Your task to perform on an android device: Search for pizza restaurants on Maps Image 0: 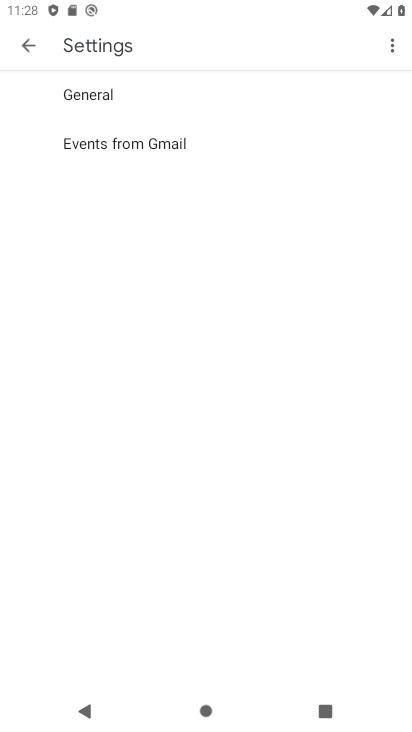
Step 0: press home button
Your task to perform on an android device: Search for pizza restaurants on Maps Image 1: 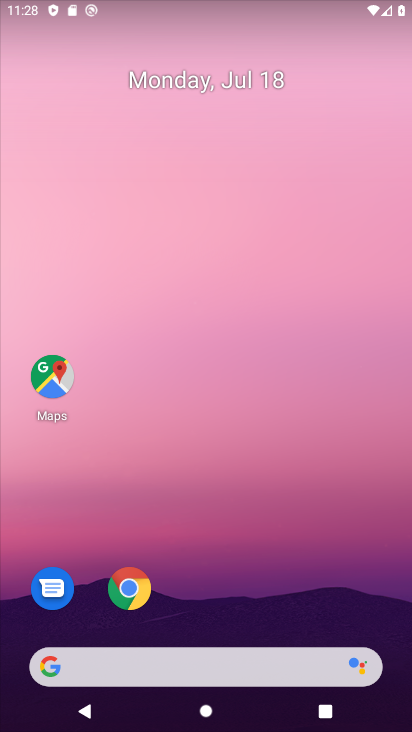
Step 1: click (47, 374)
Your task to perform on an android device: Search for pizza restaurants on Maps Image 2: 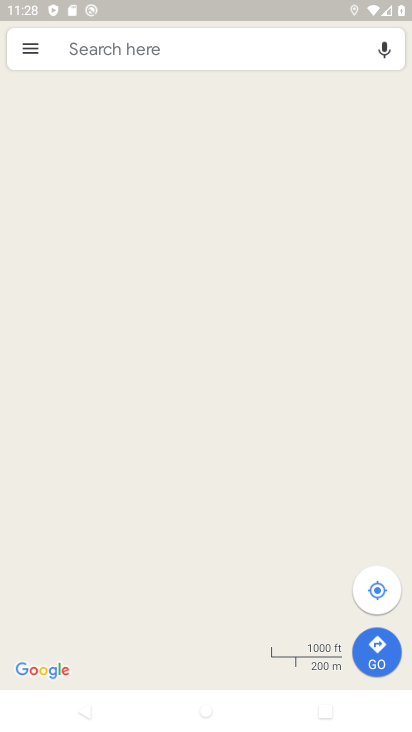
Step 2: click (172, 48)
Your task to perform on an android device: Search for pizza restaurants on Maps Image 3: 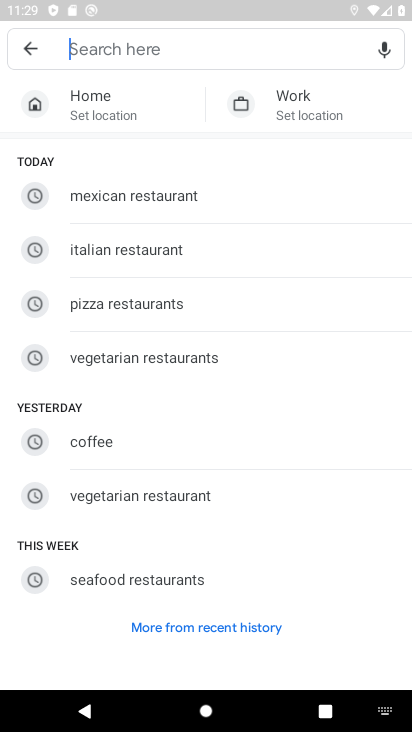
Step 3: click (156, 301)
Your task to perform on an android device: Search for pizza restaurants on Maps Image 4: 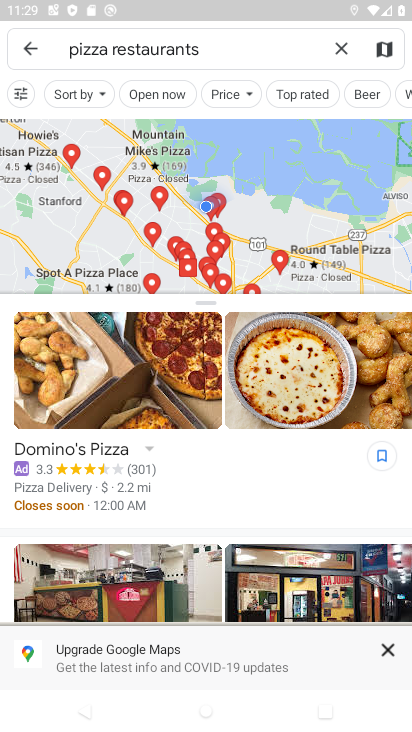
Step 4: task complete